Your task to perform on an android device: empty trash in the gmail app Image 0: 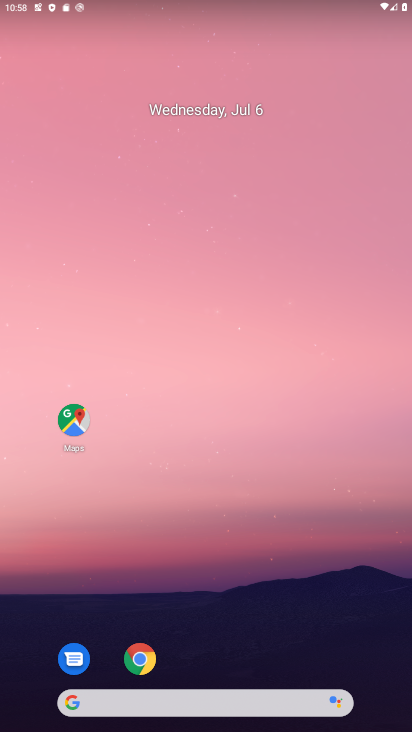
Step 0: drag from (268, 598) to (210, 134)
Your task to perform on an android device: empty trash in the gmail app Image 1: 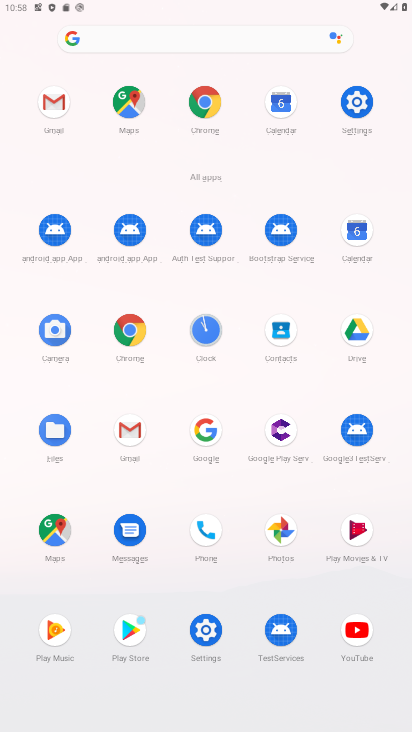
Step 1: click (56, 105)
Your task to perform on an android device: empty trash in the gmail app Image 2: 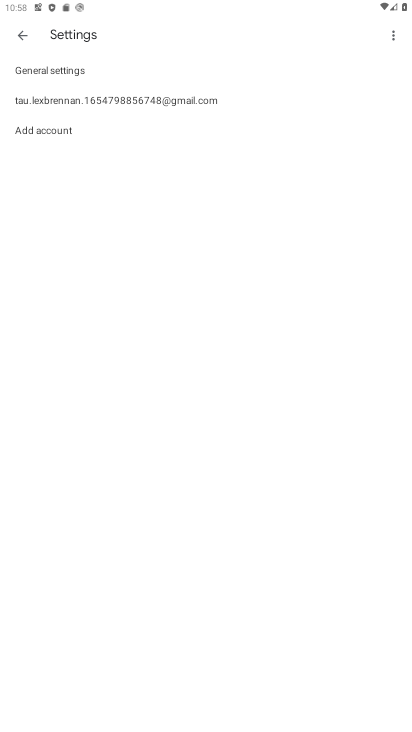
Step 2: click (19, 35)
Your task to perform on an android device: empty trash in the gmail app Image 3: 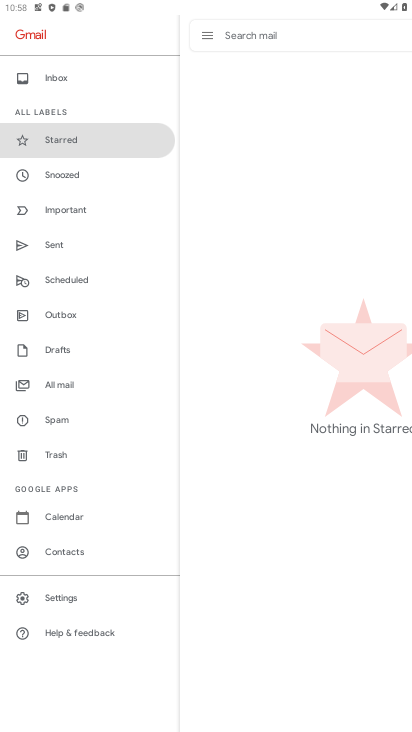
Step 3: click (58, 451)
Your task to perform on an android device: empty trash in the gmail app Image 4: 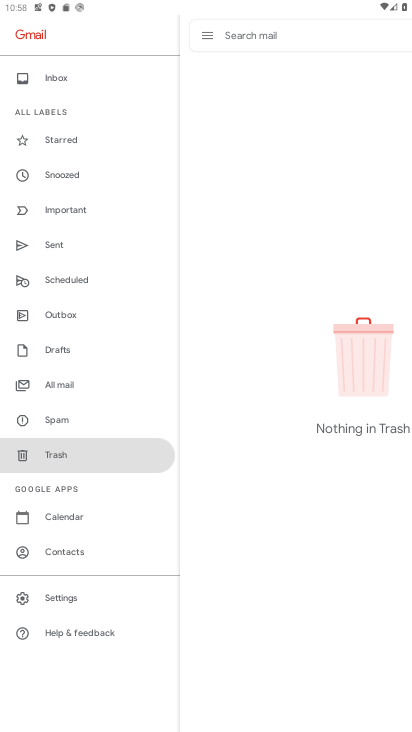
Step 4: task complete